Your task to perform on an android device: change the clock display to analog Image 0: 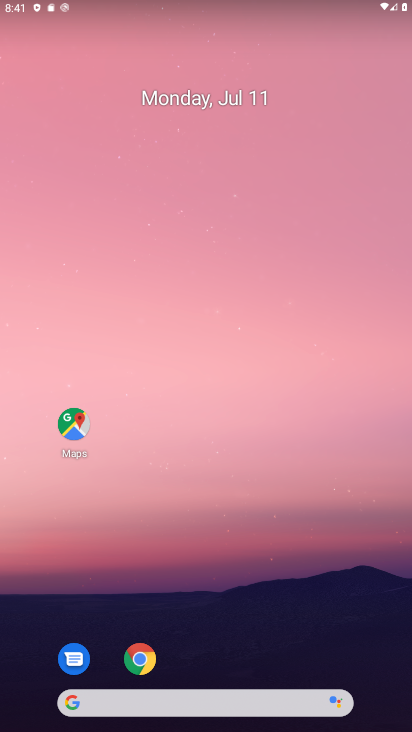
Step 0: drag from (227, 717) to (173, 44)
Your task to perform on an android device: change the clock display to analog Image 1: 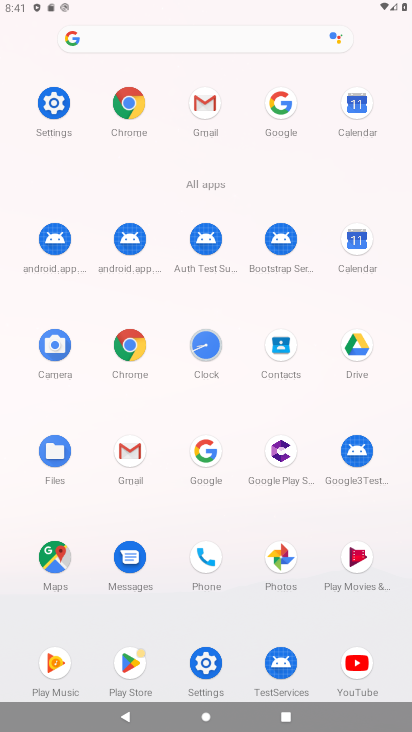
Step 1: click (47, 112)
Your task to perform on an android device: change the clock display to analog Image 2: 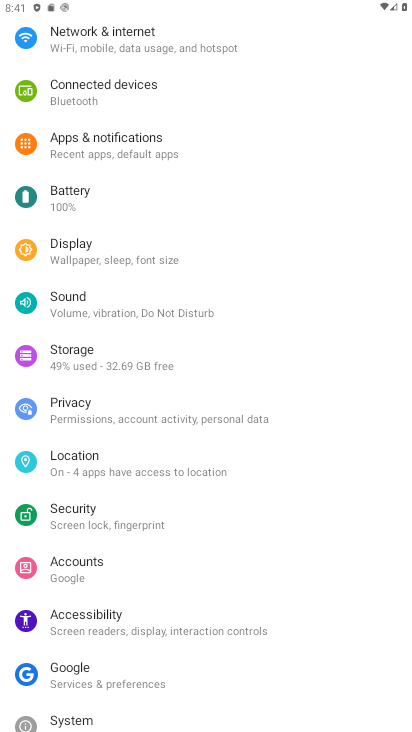
Step 2: drag from (147, 74) to (161, 457)
Your task to perform on an android device: change the clock display to analog Image 3: 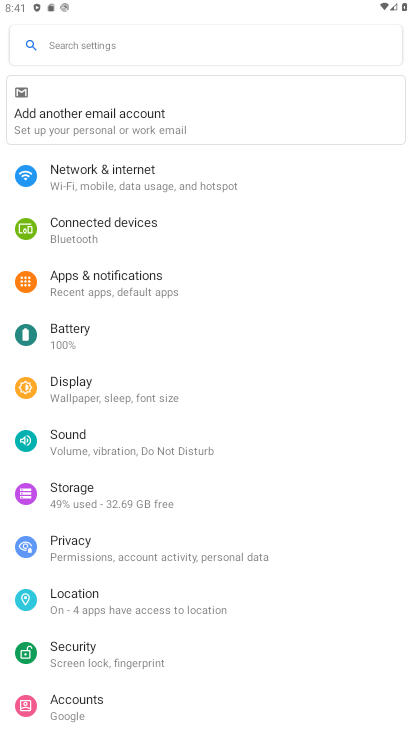
Step 3: click (124, 400)
Your task to perform on an android device: change the clock display to analog Image 4: 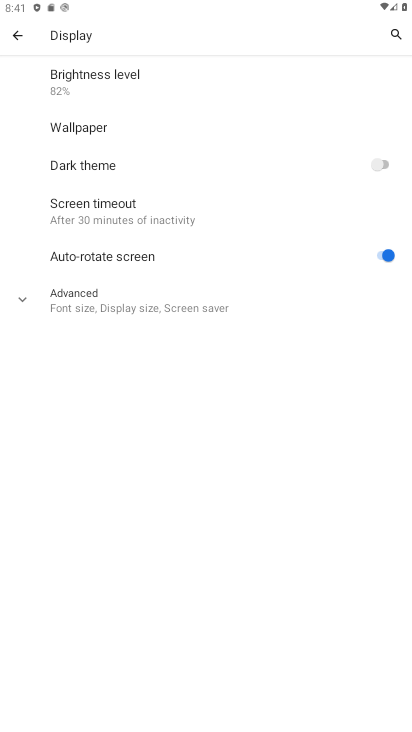
Step 4: click (105, 308)
Your task to perform on an android device: change the clock display to analog Image 5: 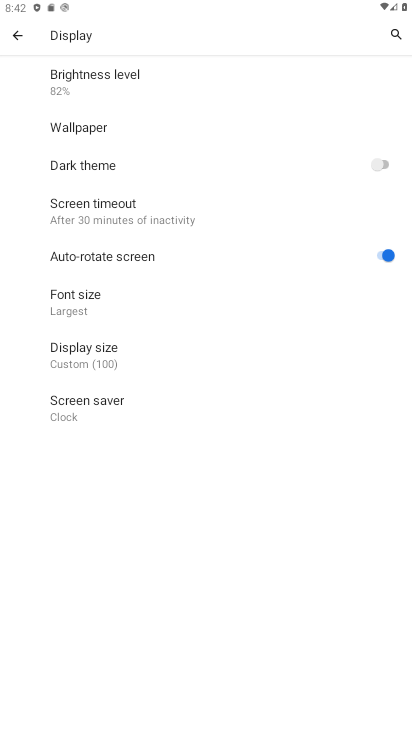
Step 5: click (75, 306)
Your task to perform on an android device: change the clock display to analog Image 6: 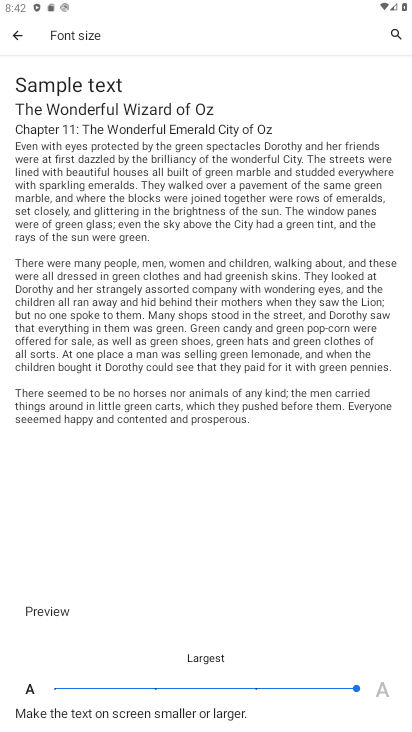
Step 6: click (313, 686)
Your task to perform on an android device: change the clock display to analog Image 7: 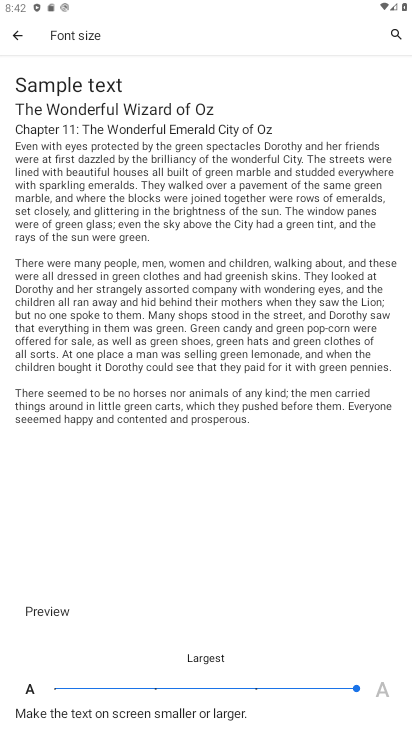
Step 7: click (254, 686)
Your task to perform on an android device: change the clock display to analog Image 8: 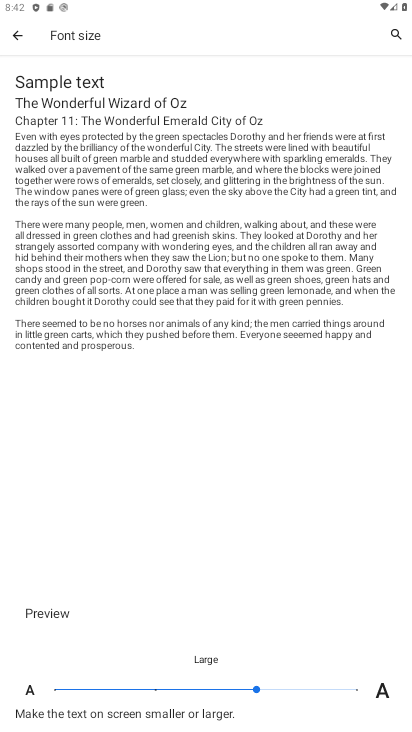
Step 8: task complete